Your task to perform on an android device: Open Google Maps and go to "Timeline" Image 0: 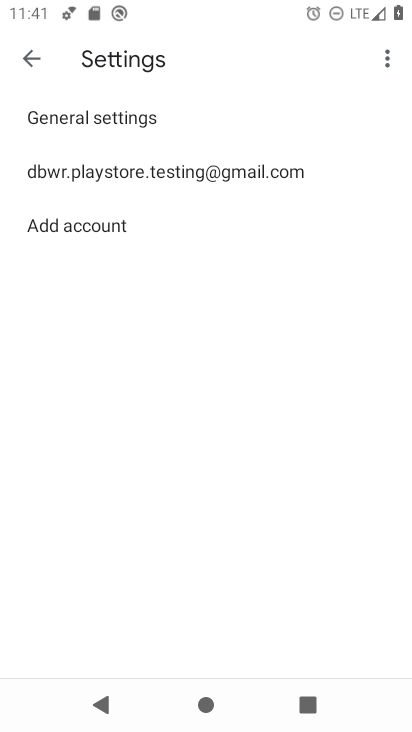
Step 0: press home button
Your task to perform on an android device: Open Google Maps and go to "Timeline" Image 1: 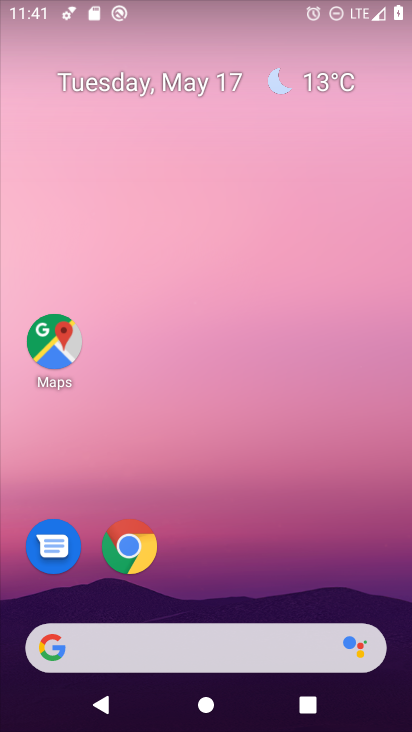
Step 1: click (56, 344)
Your task to perform on an android device: Open Google Maps and go to "Timeline" Image 2: 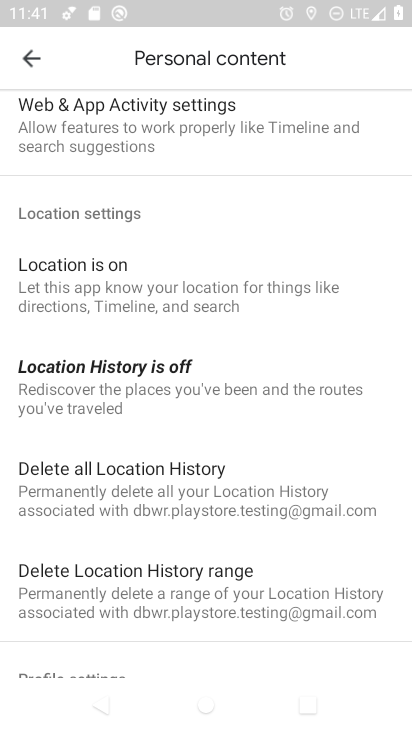
Step 2: click (23, 58)
Your task to perform on an android device: Open Google Maps and go to "Timeline" Image 3: 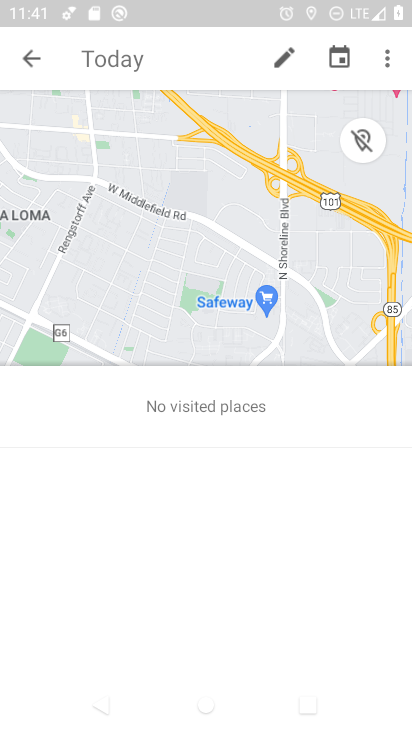
Step 3: task complete